Your task to perform on an android device: Open privacy settings Image 0: 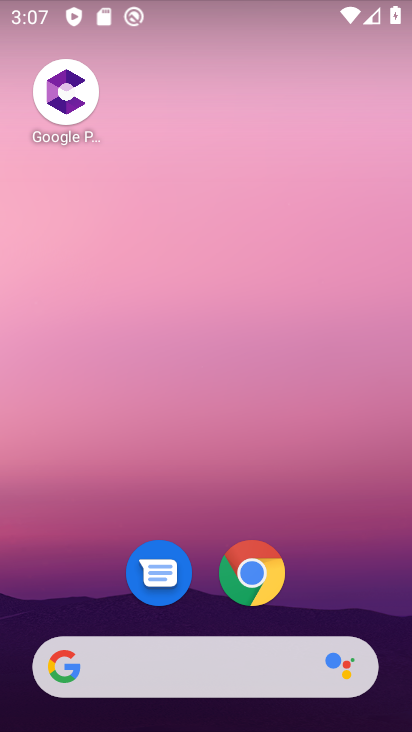
Step 0: click (245, 563)
Your task to perform on an android device: Open privacy settings Image 1: 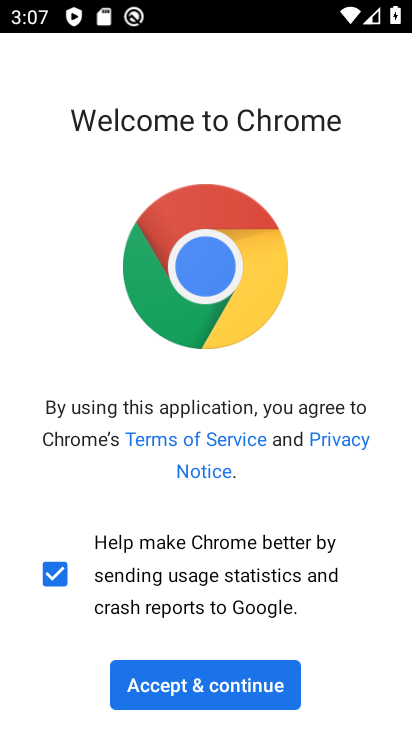
Step 1: click (229, 678)
Your task to perform on an android device: Open privacy settings Image 2: 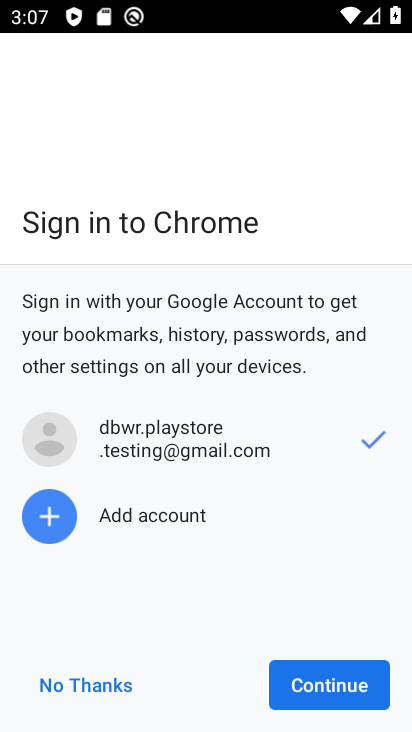
Step 2: click (334, 696)
Your task to perform on an android device: Open privacy settings Image 3: 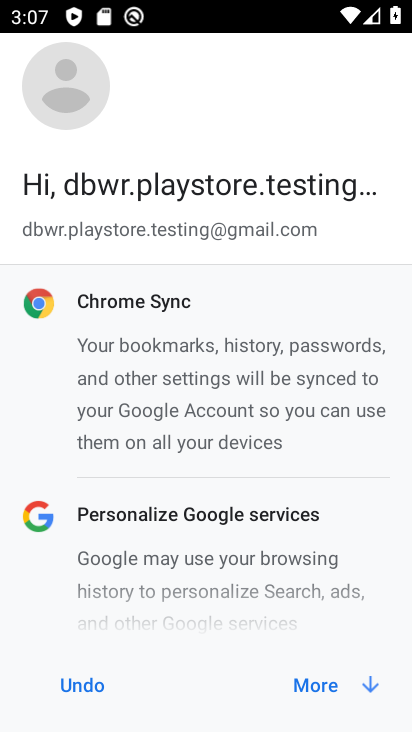
Step 3: click (326, 680)
Your task to perform on an android device: Open privacy settings Image 4: 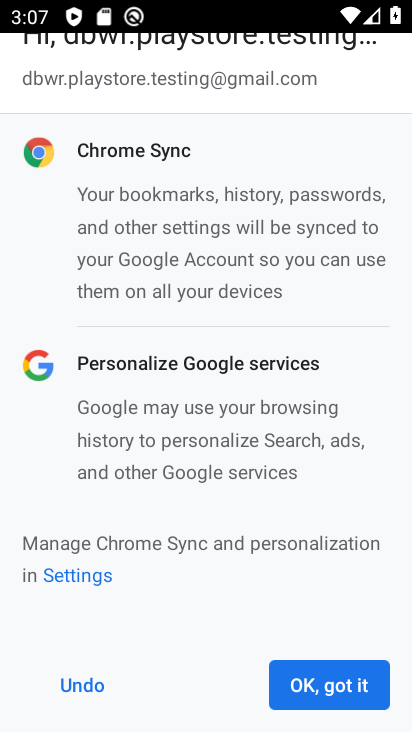
Step 4: click (326, 680)
Your task to perform on an android device: Open privacy settings Image 5: 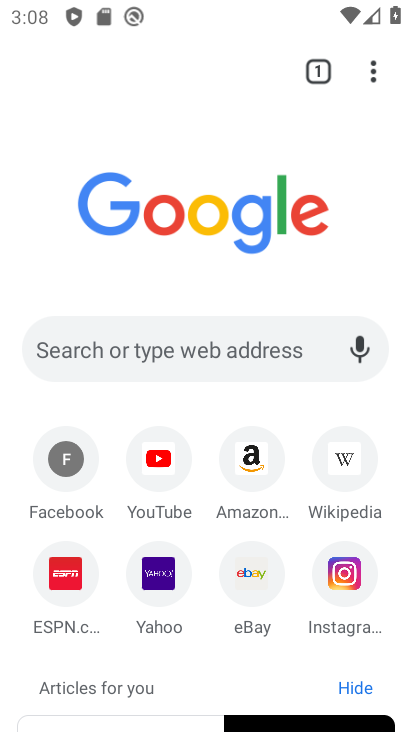
Step 5: click (370, 75)
Your task to perform on an android device: Open privacy settings Image 6: 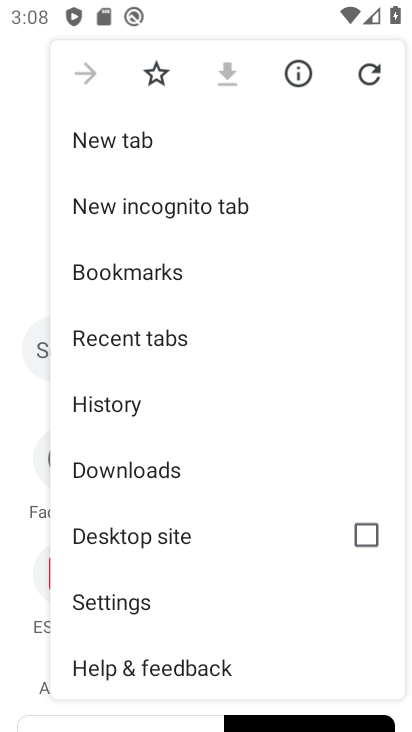
Step 6: click (125, 582)
Your task to perform on an android device: Open privacy settings Image 7: 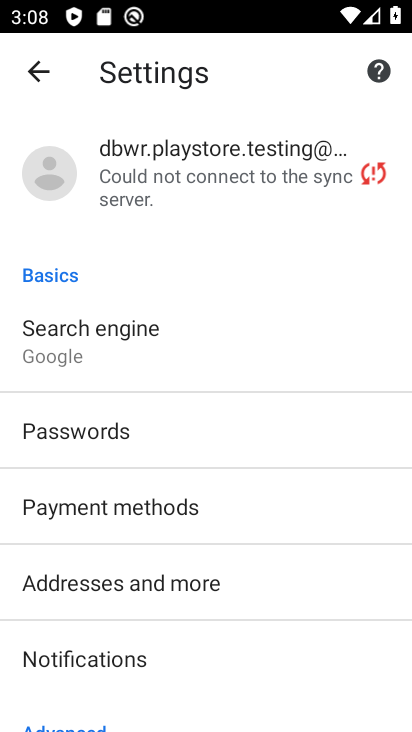
Step 7: drag from (270, 632) to (273, 320)
Your task to perform on an android device: Open privacy settings Image 8: 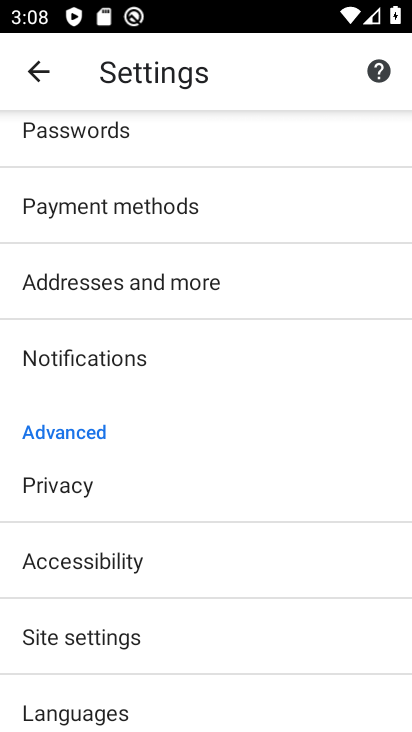
Step 8: click (96, 642)
Your task to perform on an android device: Open privacy settings Image 9: 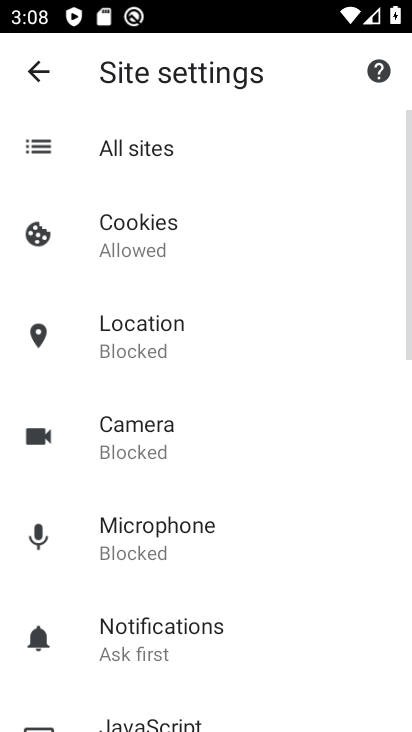
Step 9: click (27, 83)
Your task to perform on an android device: Open privacy settings Image 10: 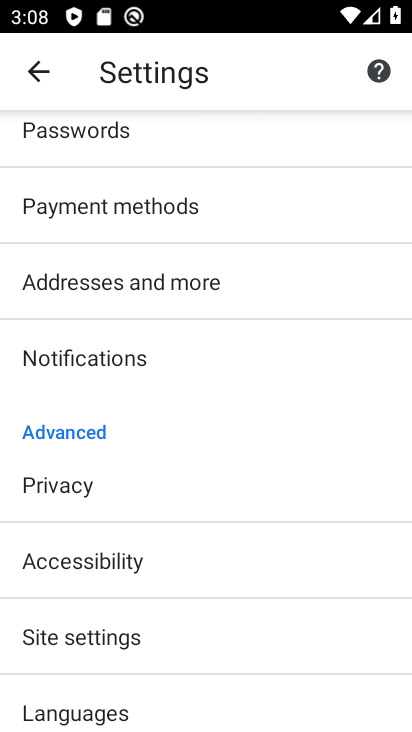
Step 10: click (69, 473)
Your task to perform on an android device: Open privacy settings Image 11: 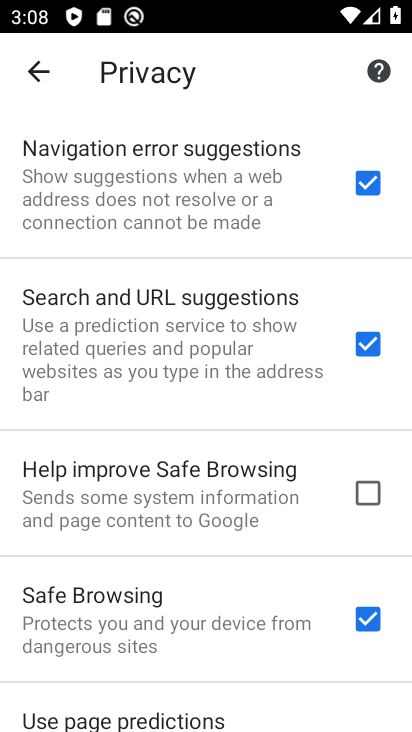
Step 11: task complete